Your task to perform on an android device: change the clock display to show seconds Image 0: 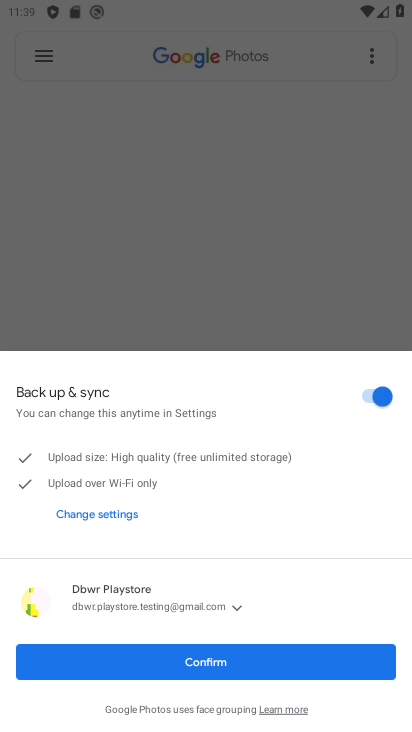
Step 0: press home button
Your task to perform on an android device: change the clock display to show seconds Image 1: 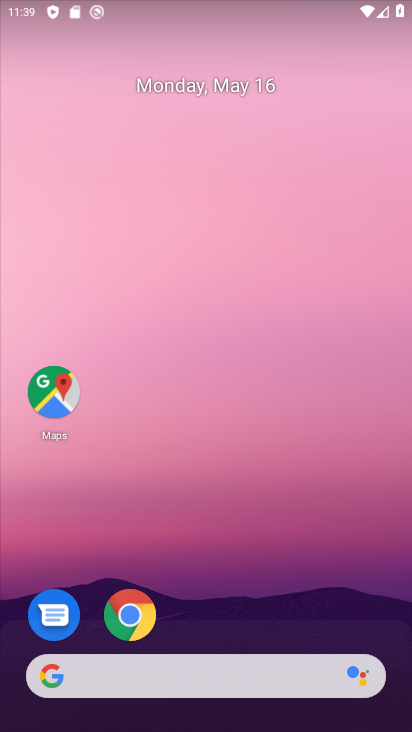
Step 1: drag from (299, 603) to (305, 131)
Your task to perform on an android device: change the clock display to show seconds Image 2: 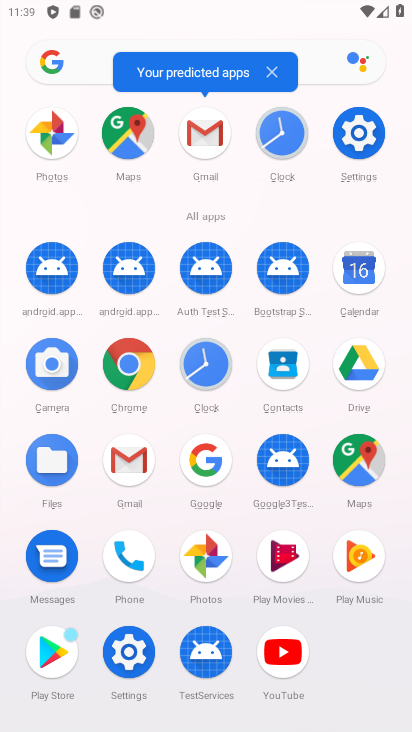
Step 2: click (277, 181)
Your task to perform on an android device: change the clock display to show seconds Image 3: 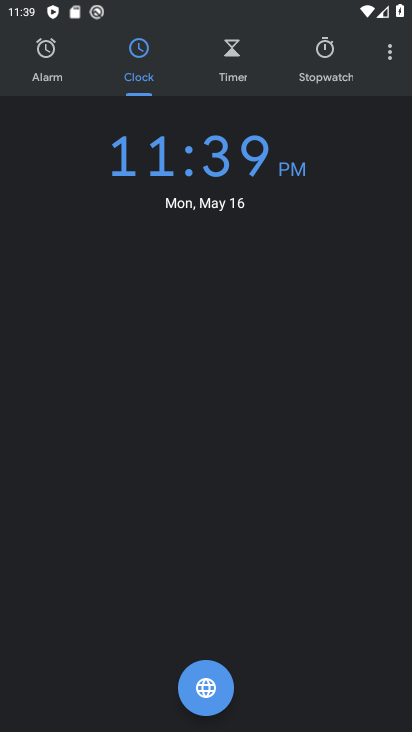
Step 3: click (378, 62)
Your task to perform on an android device: change the clock display to show seconds Image 4: 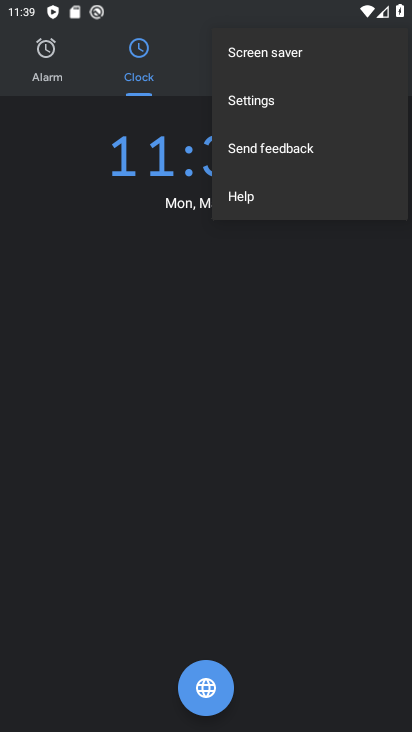
Step 4: click (260, 118)
Your task to perform on an android device: change the clock display to show seconds Image 5: 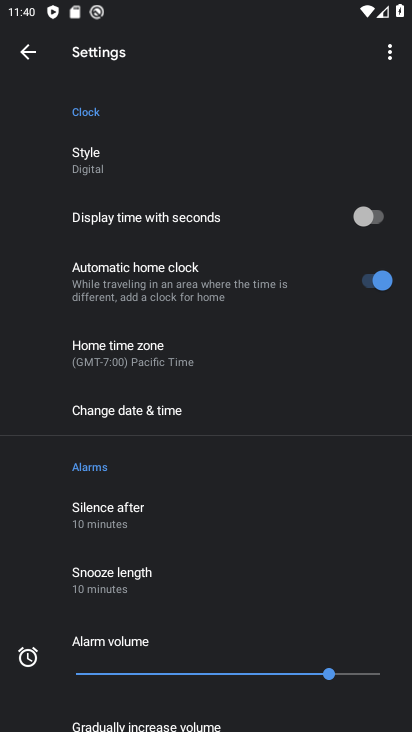
Step 5: click (365, 207)
Your task to perform on an android device: change the clock display to show seconds Image 6: 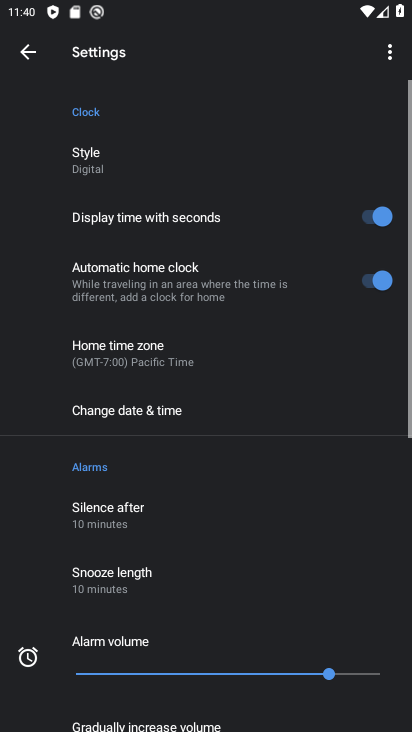
Step 6: task complete